Your task to perform on an android device: Turn on the flashlight Image 0: 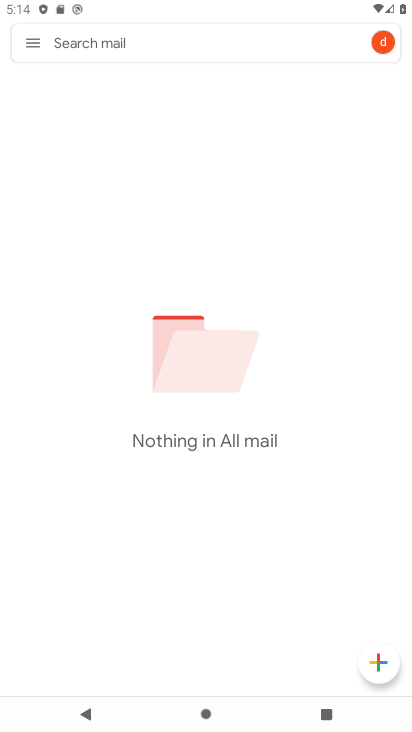
Step 0: press home button
Your task to perform on an android device: Turn on the flashlight Image 1: 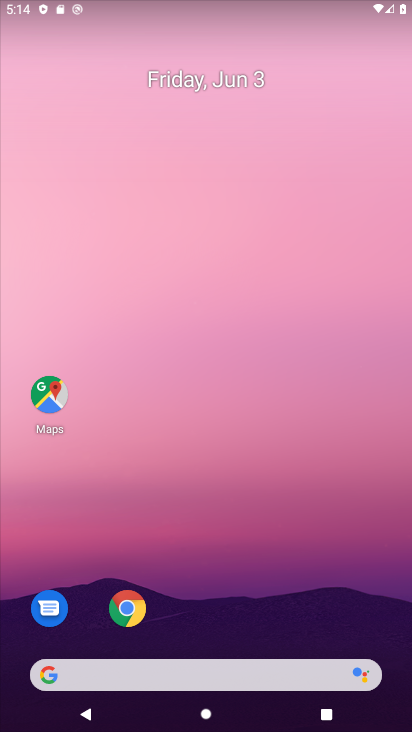
Step 1: click (363, 524)
Your task to perform on an android device: Turn on the flashlight Image 2: 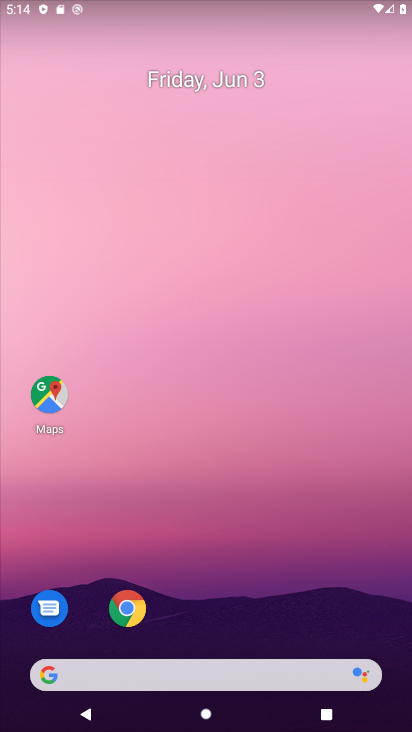
Step 2: drag from (363, 524) to (350, 42)
Your task to perform on an android device: Turn on the flashlight Image 3: 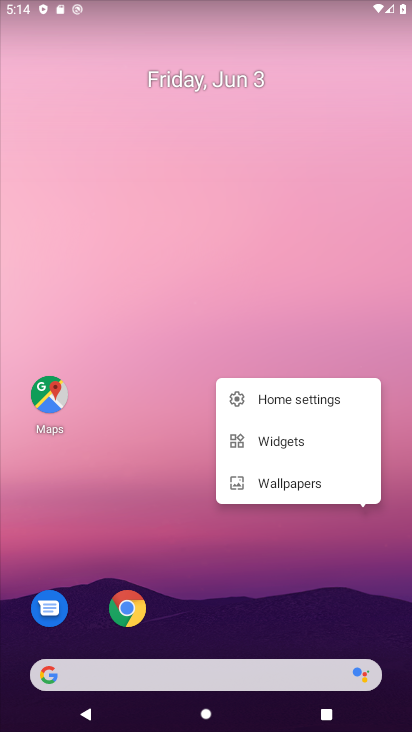
Step 3: click (384, 191)
Your task to perform on an android device: Turn on the flashlight Image 4: 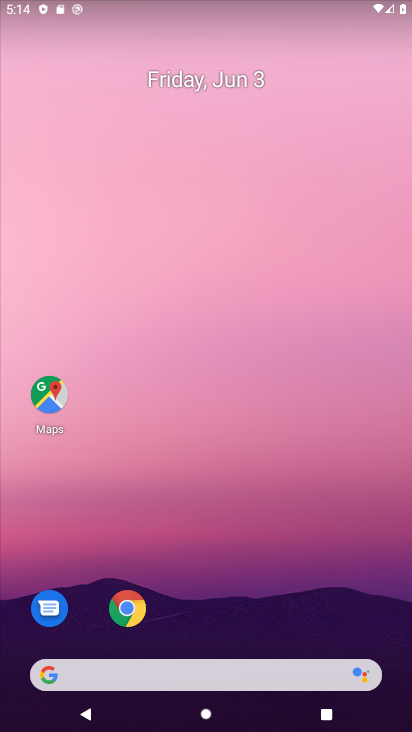
Step 4: drag from (269, 578) to (196, 107)
Your task to perform on an android device: Turn on the flashlight Image 5: 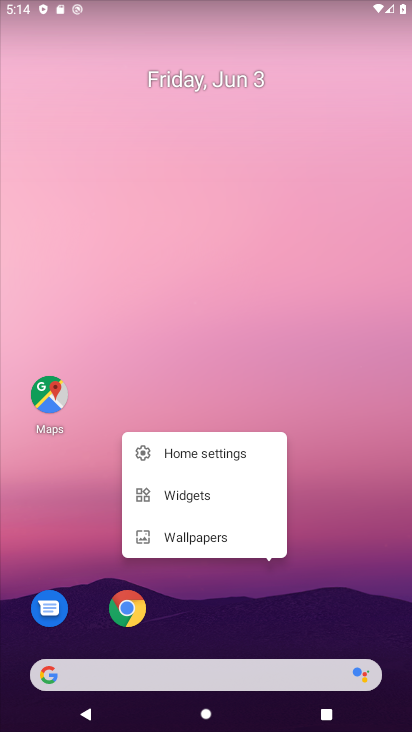
Step 5: press back button
Your task to perform on an android device: Turn on the flashlight Image 6: 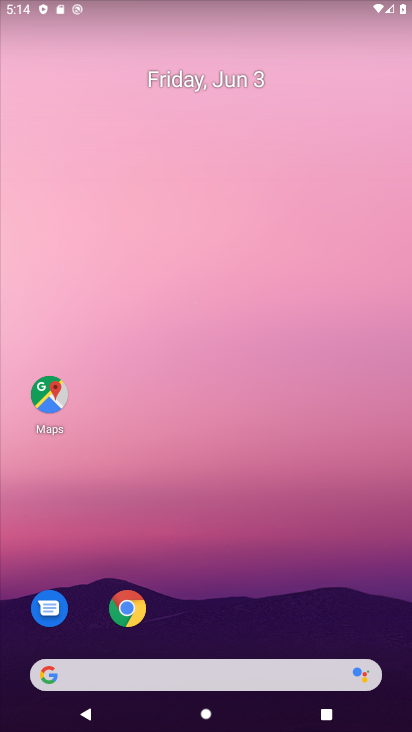
Step 6: click (219, 281)
Your task to perform on an android device: Turn on the flashlight Image 7: 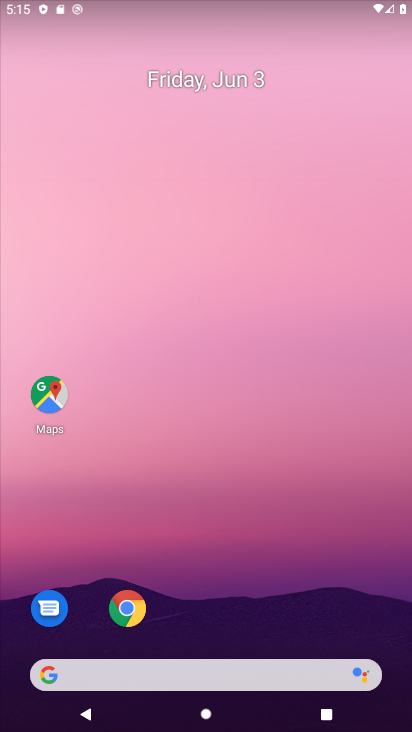
Step 7: drag from (234, 597) to (212, 285)
Your task to perform on an android device: Turn on the flashlight Image 8: 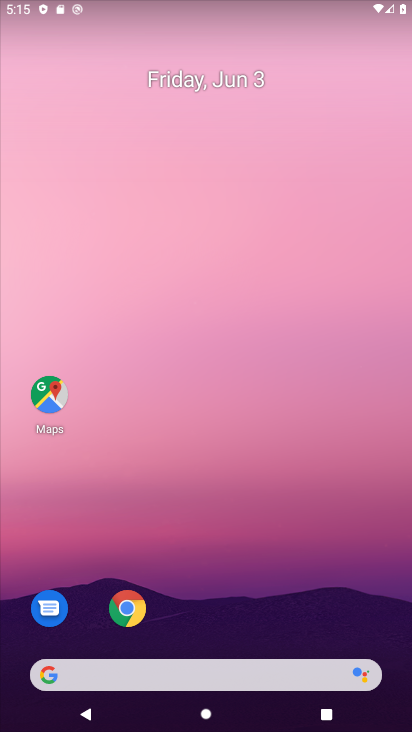
Step 8: drag from (240, 471) to (213, 38)
Your task to perform on an android device: Turn on the flashlight Image 9: 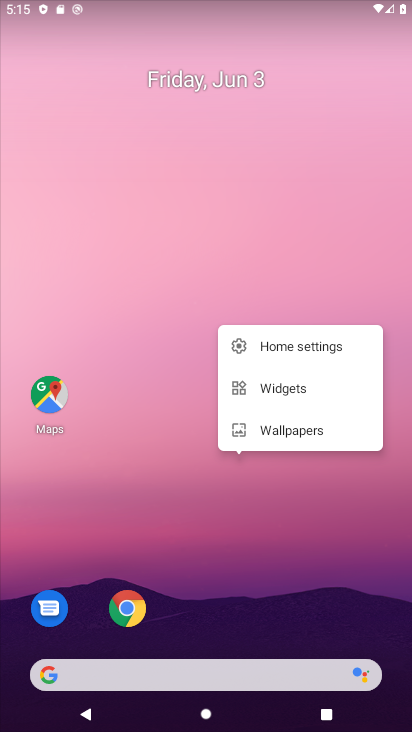
Step 9: click (122, 333)
Your task to perform on an android device: Turn on the flashlight Image 10: 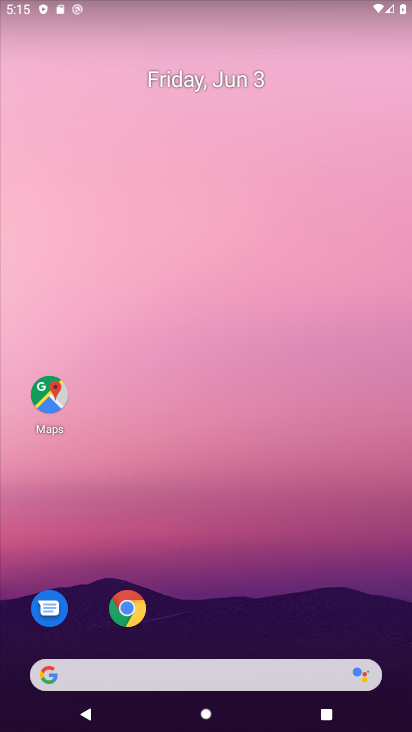
Step 10: drag from (313, 580) to (152, 6)
Your task to perform on an android device: Turn on the flashlight Image 11: 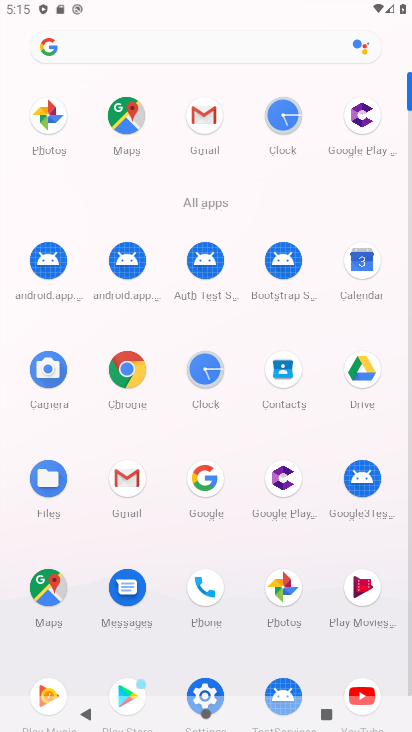
Step 11: click (407, 566)
Your task to perform on an android device: Turn on the flashlight Image 12: 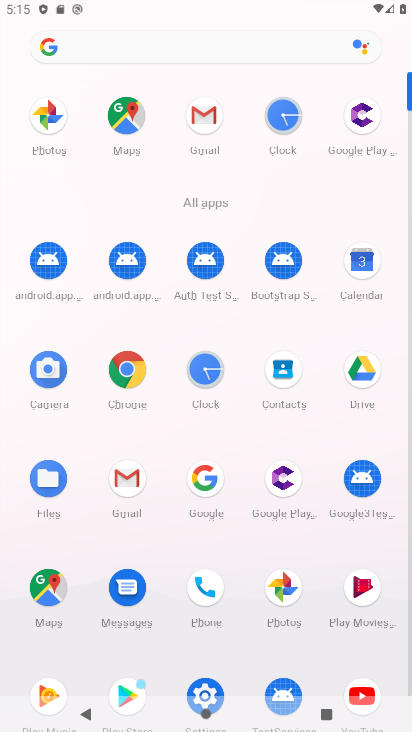
Step 12: click (407, 566)
Your task to perform on an android device: Turn on the flashlight Image 13: 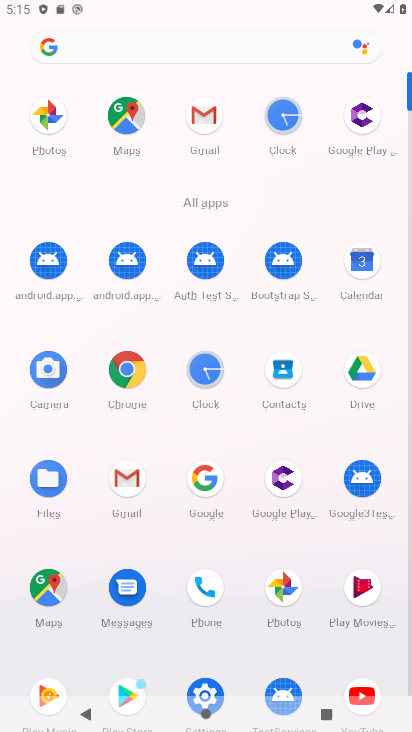
Step 13: click (407, 566)
Your task to perform on an android device: Turn on the flashlight Image 14: 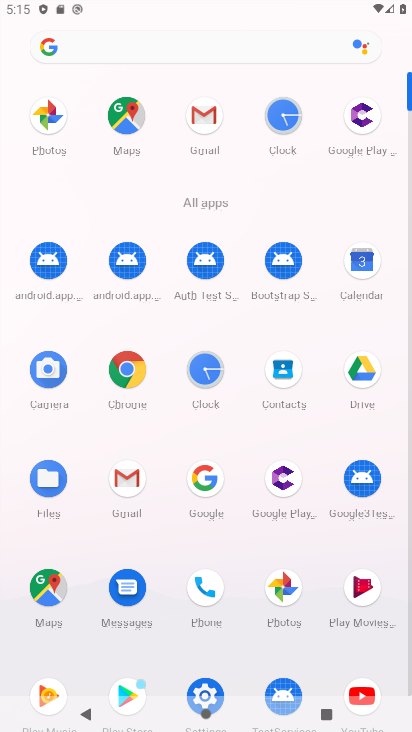
Step 14: click (407, 566)
Your task to perform on an android device: Turn on the flashlight Image 15: 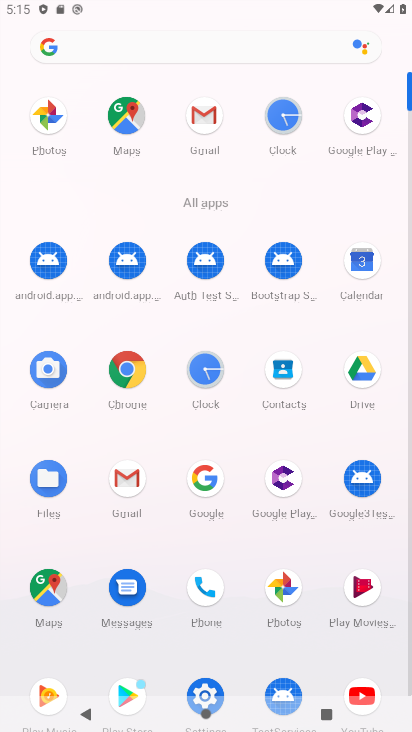
Step 15: click (407, 570)
Your task to perform on an android device: Turn on the flashlight Image 16: 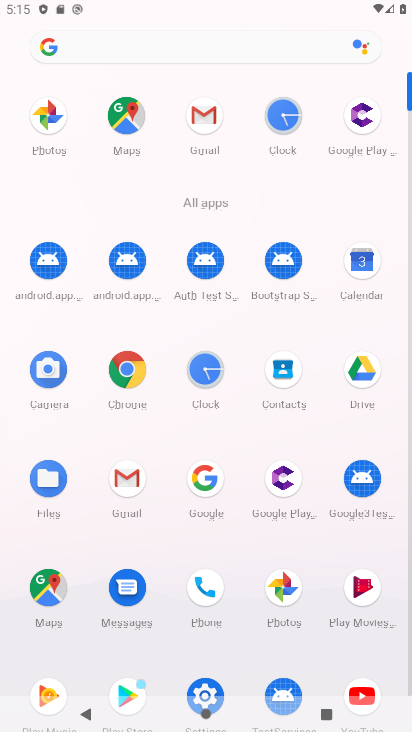
Step 16: drag from (407, 570) to (407, 358)
Your task to perform on an android device: Turn on the flashlight Image 17: 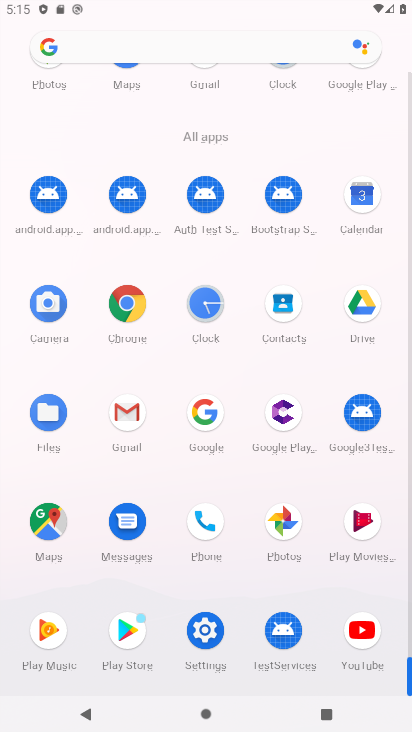
Step 17: click (407, 358)
Your task to perform on an android device: Turn on the flashlight Image 18: 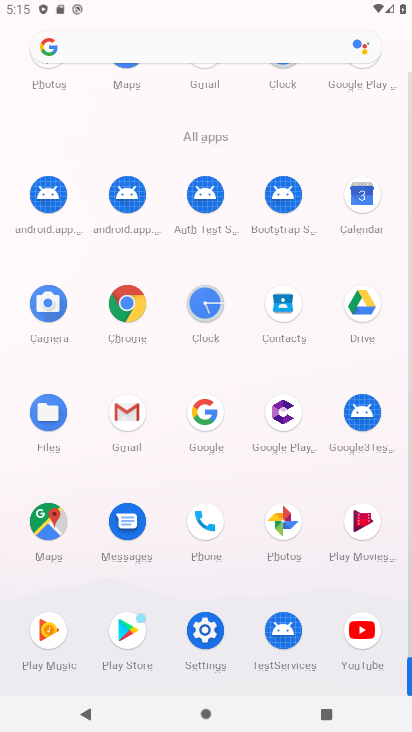
Step 18: click (197, 634)
Your task to perform on an android device: Turn on the flashlight Image 19: 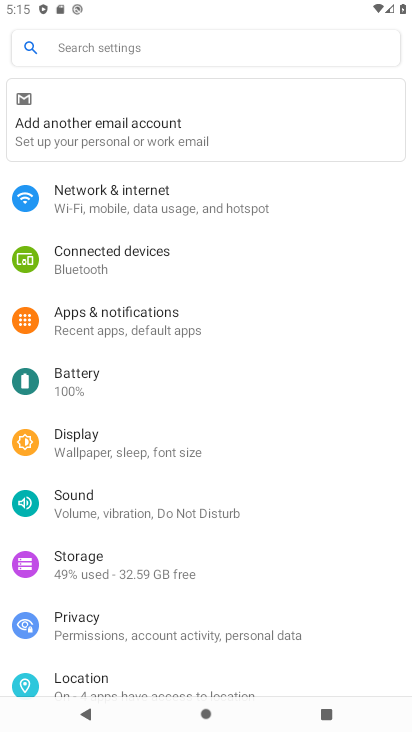
Step 19: click (141, 454)
Your task to perform on an android device: Turn on the flashlight Image 20: 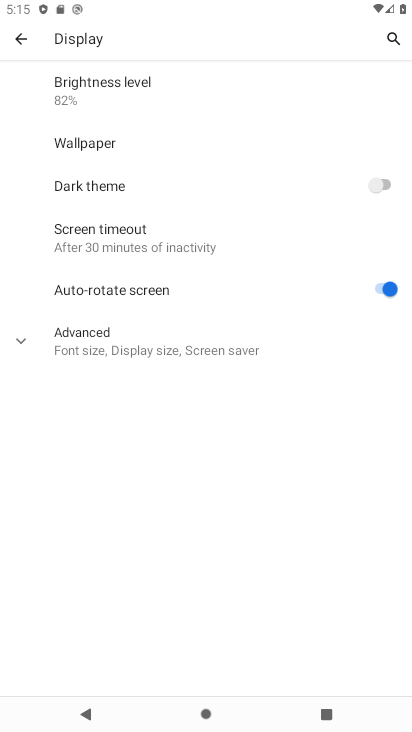
Step 20: task complete